Your task to perform on an android device: Do I have any events this weekend? Image 0: 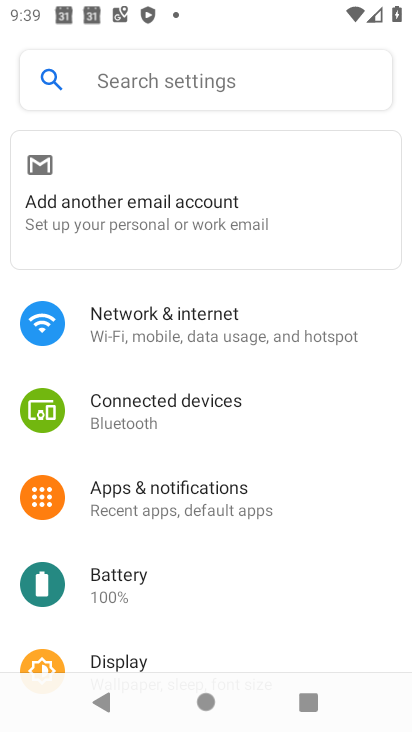
Step 0: press home button
Your task to perform on an android device: Do I have any events this weekend? Image 1: 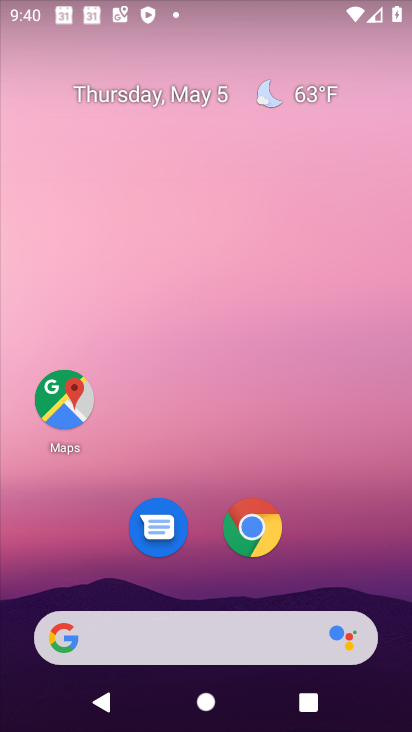
Step 1: drag from (274, 694) to (213, 93)
Your task to perform on an android device: Do I have any events this weekend? Image 2: 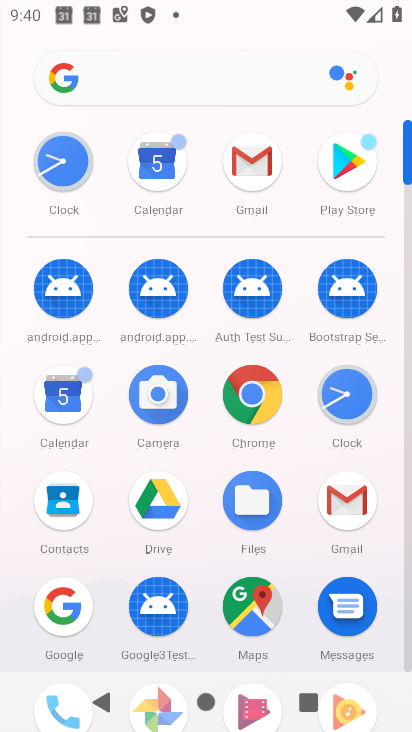
Step 2: click (75, 414)
Your task to perform on an android device: Do I have any events this weekend? Image 3: 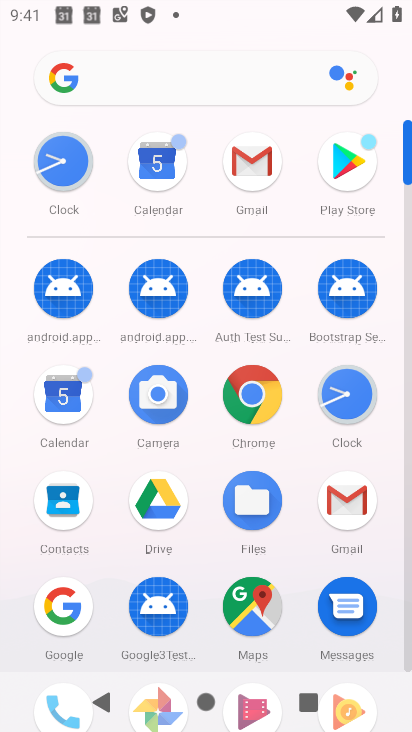
Step 3: click (177, 171)
Your task to perform on an android device: Do I have any events this weekend? Image 4: 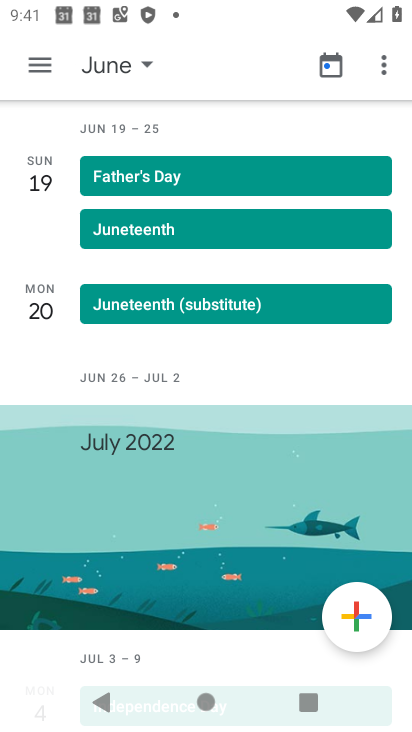
Step 4: task complete